Your task to perform on an android device: Play the last video I watched on Youtube Image 0: 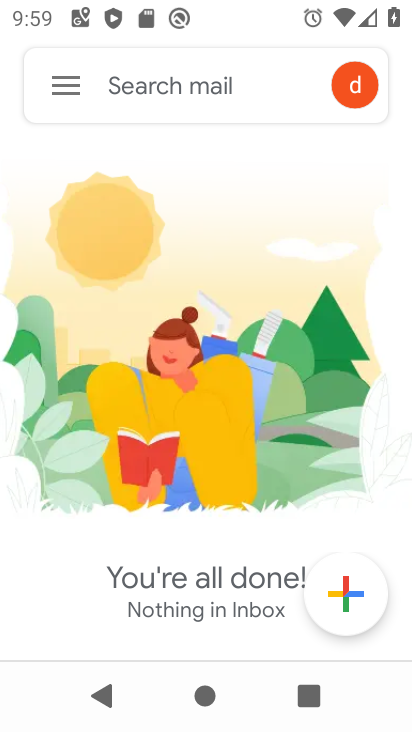
Step 0: press home button
Your task to perform on an android device: Play the last video I watched on Youtube Image 1: 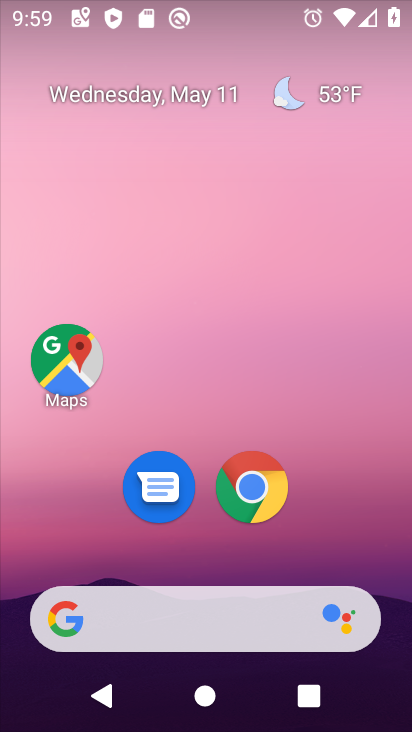
Step 1: drag from (194, 559) to (228, 230)
Your task to perform on an android device: Play the last video I watched on Youtube Image 2: 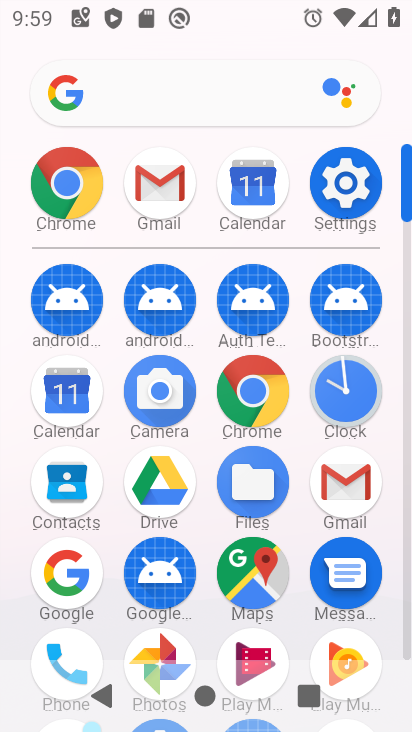
Step 2: drag from (214, 629) to (218, 217)
Your task to perform on an android device: Play the last video I watched on Youtube Image 3: 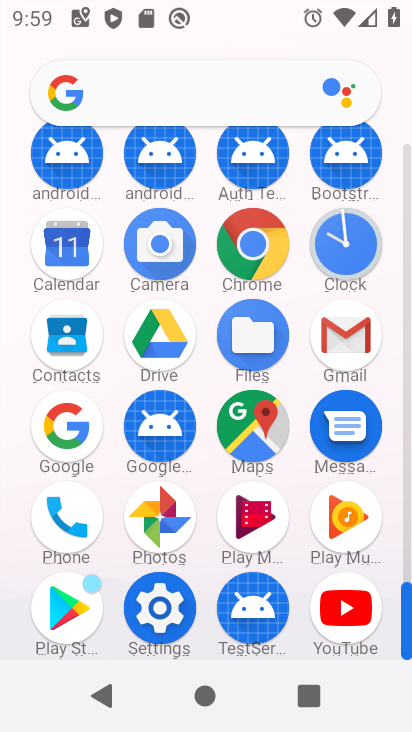
Step 3: click (336, 609)
Your task to perform on an android device: Play the last video I watched on Youtube Image 4: 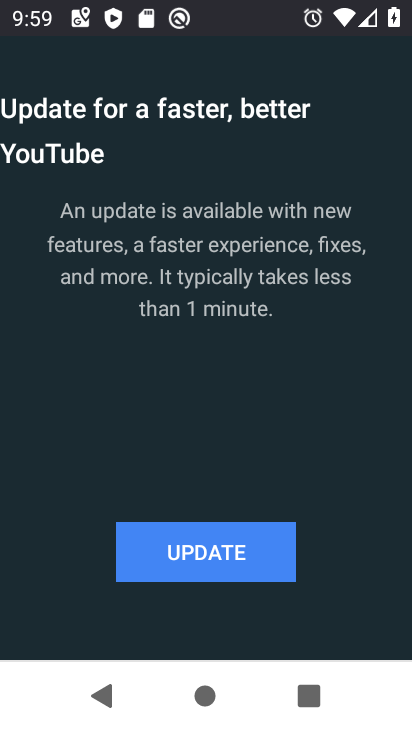
Step 4: drag from (240, 529) to (190, 529)
Your task to perform on an android device: Play the last video I watched on Youtube Image 5: 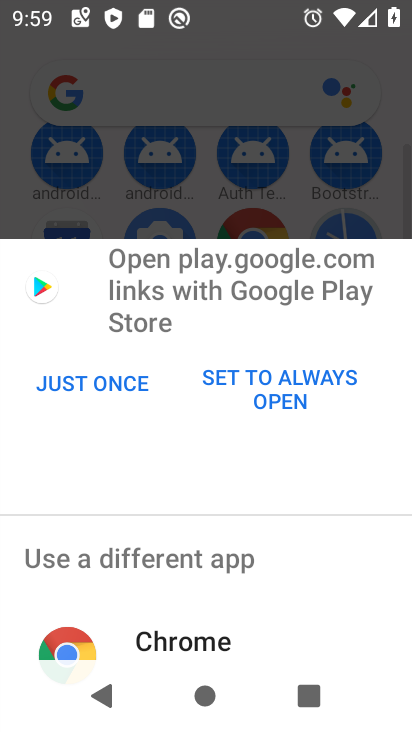
Step 5: click (114, 373)
Your task to perform on an android device: Play the last video I watched on Youtube Image 6: 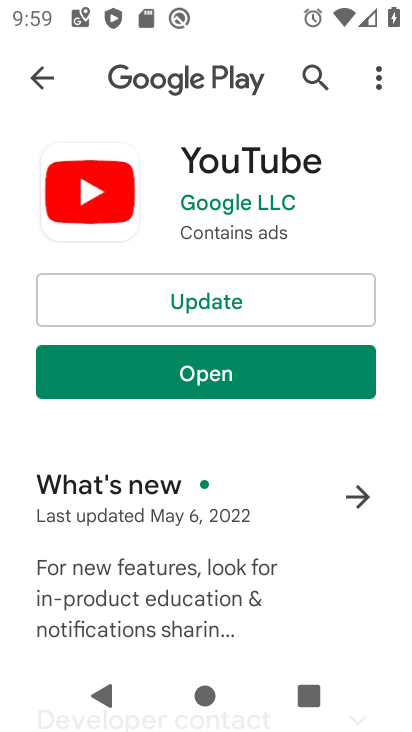
Step 6: click (201, 308)
Your task to perform on an android device: Play the last video I watched on Youtube Image 7: 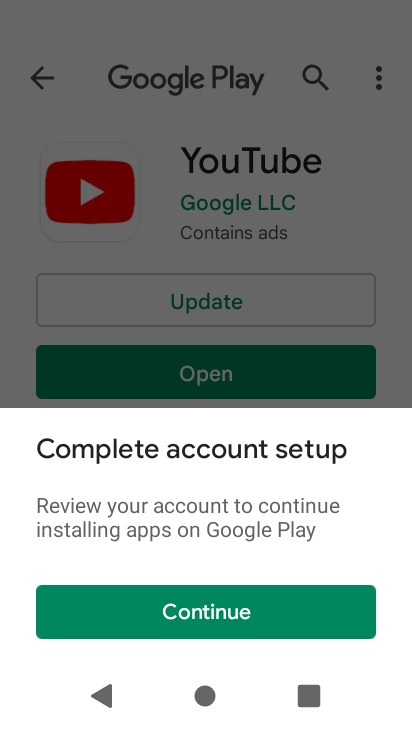
Step 7: click (188, 601)
Your task to perform on an android device: Play the last video I watched on Youtube Image 8: 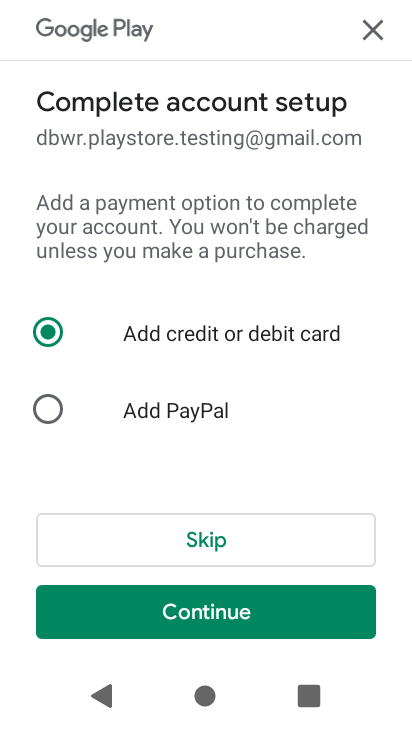
Step 8: click (258, 602)
Your task to perform on an android device: Play the last video I watched on Youtube Image 9: 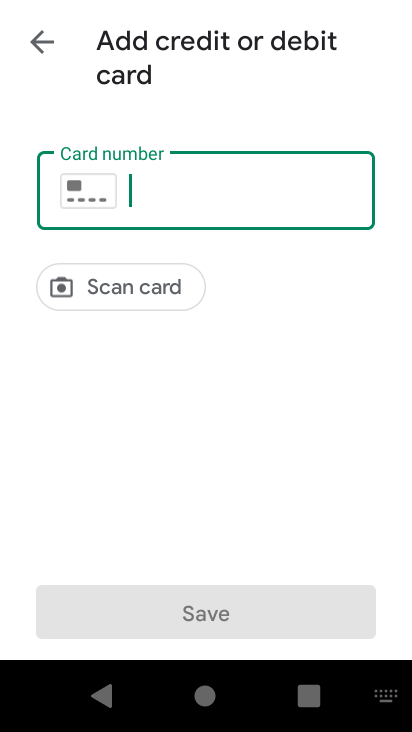
Step 9: press back button
Your task to perform on an android device: Play the last video I watched on Youtube Image 10: 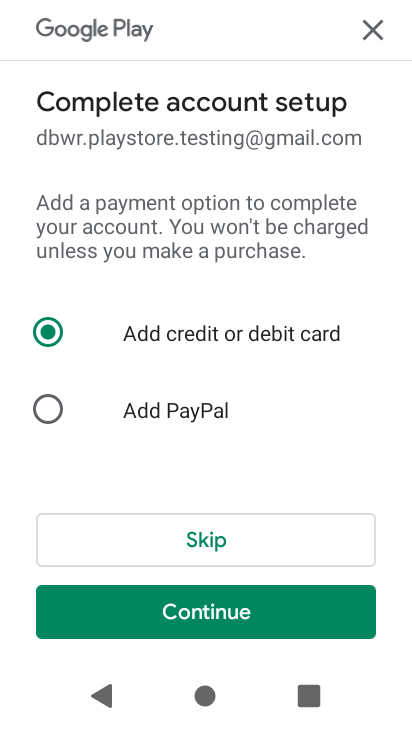
Step 10: click (284, 555)
Your task to perform on an android device: Play the last video I watched on Youtube Image 11: 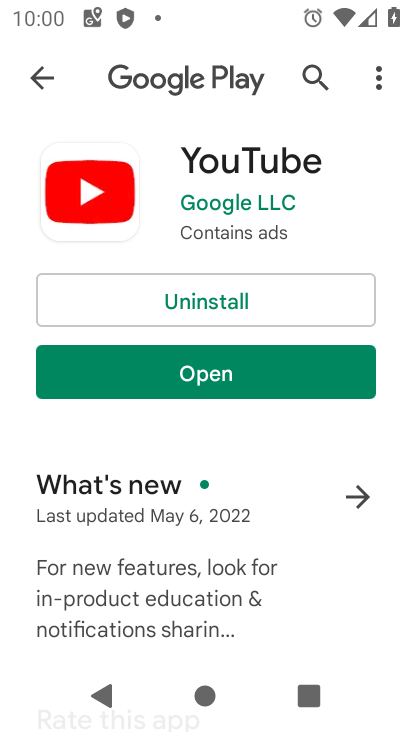
Step 11: click (242, 379)
Your task to perform on an android device: Play the last video I watched on Youtube Image 12: 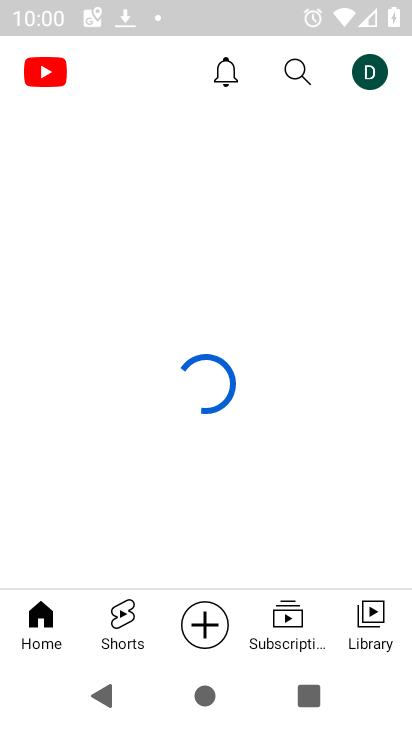
Step 12: click (364, 605)
Your task to perform on an android device: Play the last video I watched on Youtube Image 13: 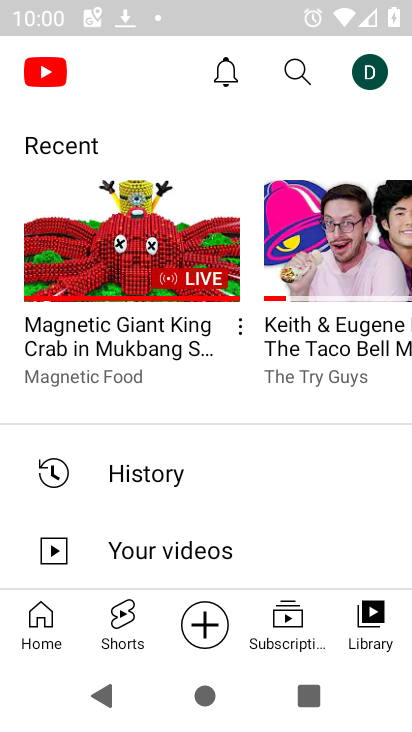
Step 13: click (108, 487)
Your task to perform on an android device: Play the last video I watched on Youtube Image 14: 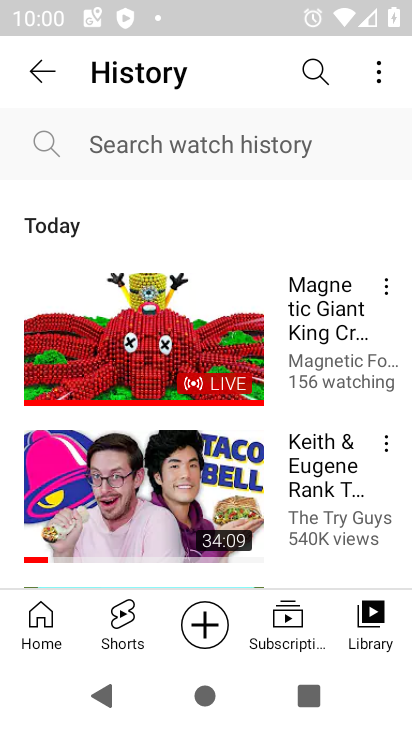
Step 14: task complete